Your task to perform on an android device: Open display settings Image 0: 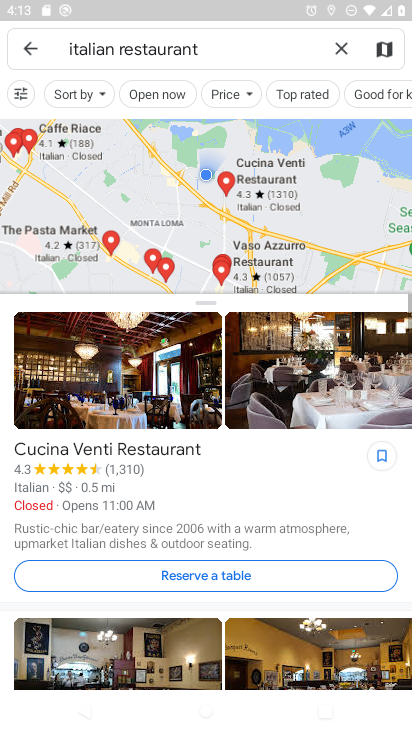
Step 0: press home button
Your task to perform on an android device: Open display settings Image 1: 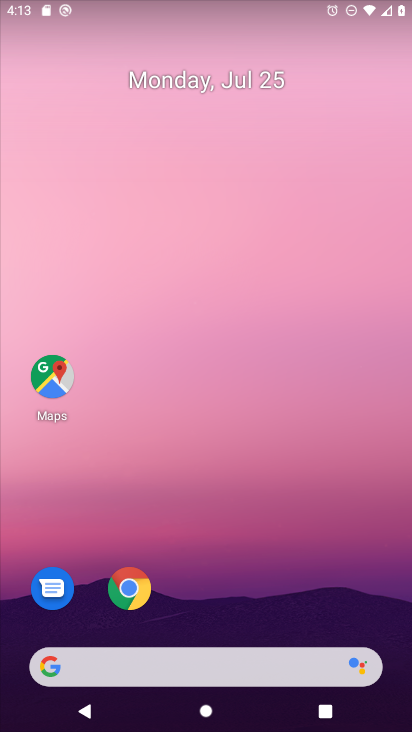
Step 1: drag from (229, 682) to (253, 21)
Your task to perform on an android device: Open display settings Image 2: 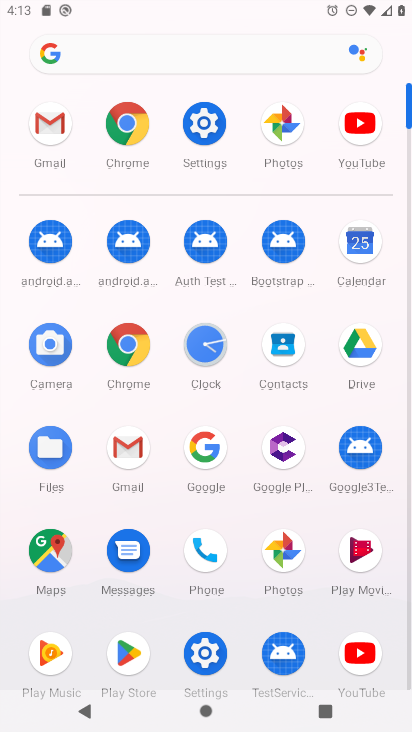
Step 2: click (207, 111)
Your task to perform on an android device: Open display settings Image 3: 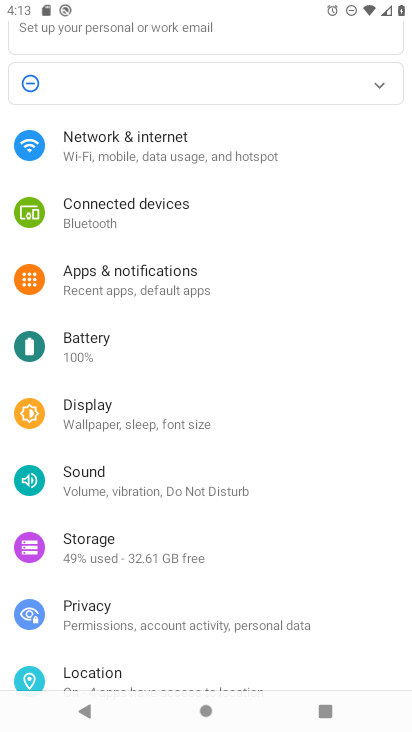
Step 3: click (84, 419)
Your task to perform on an android device: Open display settings Image 4: 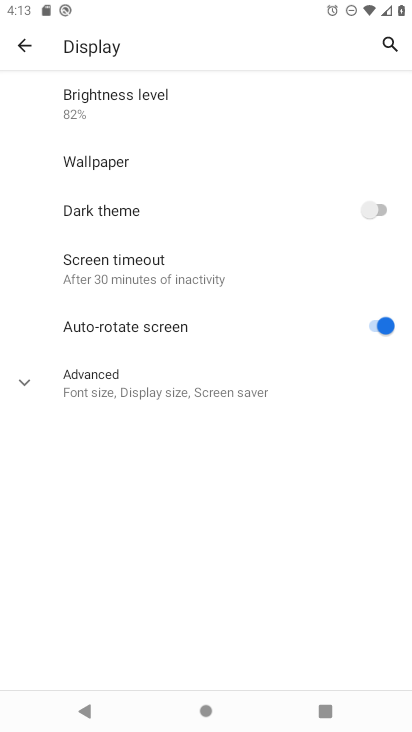
Step 4: task complete